Your task to perform on an android device: delete location history Image 0: 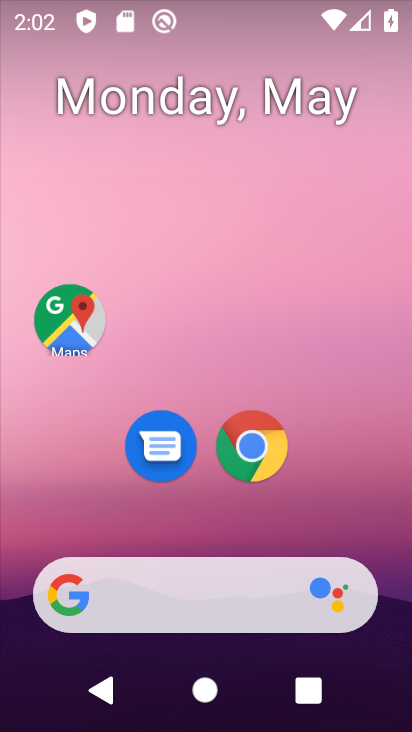
Step 0: drag from (374, 472) to (374, 191)
Your task to perform on an android device: delete location history Image 1: 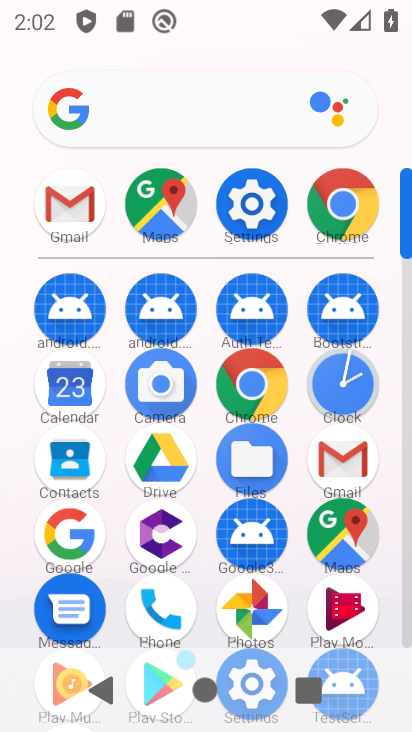
Step 1: click (253, 208)
Your task to perform on an android device: delete location history Image 2: 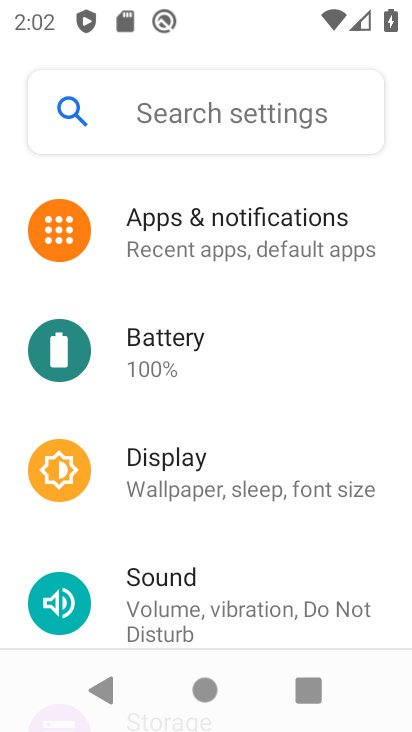
Step 2: drag from (249, 553) to (274, 317)
Your task to perform on an android device: delete location history Image 3: 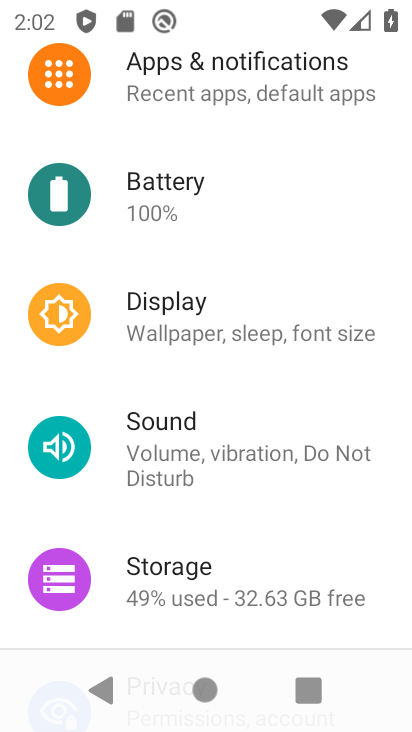
Step 3: drag from (258, 496) to (275, 258)
Your task to perform on an android device: delete location history Image 4: 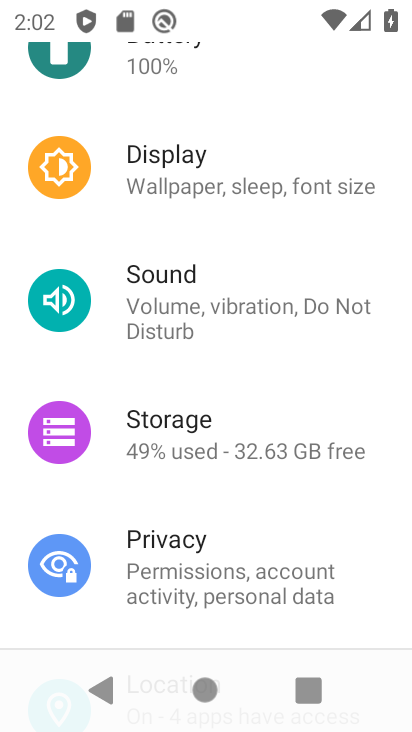
Step 4: drag from (250, 492) to (268, 240)
Your task to perform on an android device: delete location history Image 5: 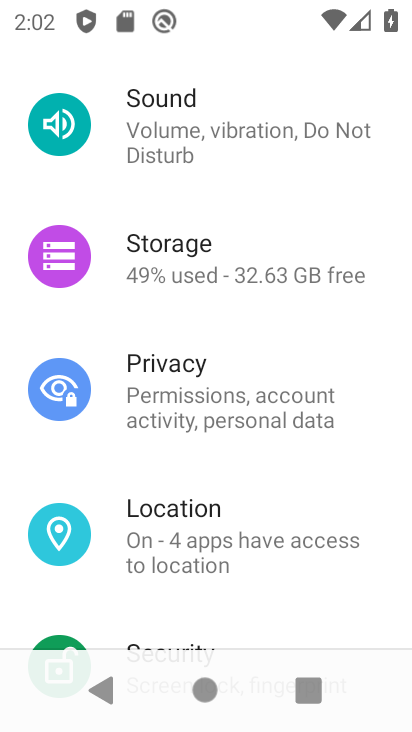
Step 5: click (233, 527)
Your task to perform on an android device: delete location history Image 6: 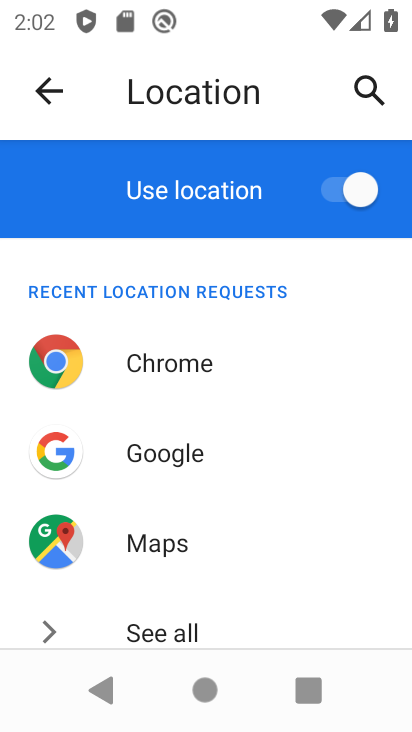
Step 6: drag from (239, 598) to (269, 304)
Your task to perform on an android device: delete location history Image 7: 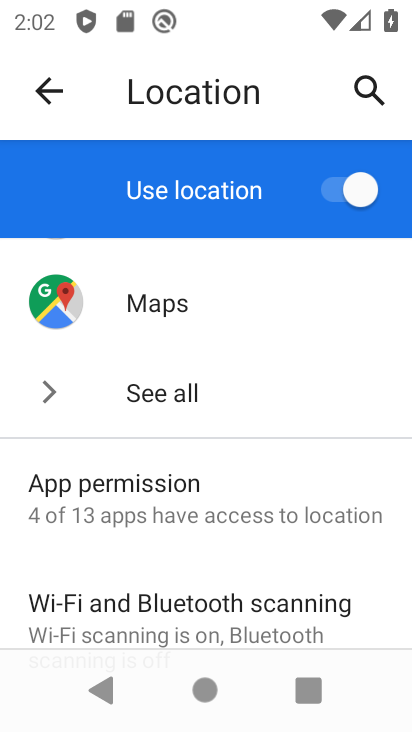
Step 7: drag from (255, 534) to (238, 303)
Your task to perform on an android device: delete location history Image 8: 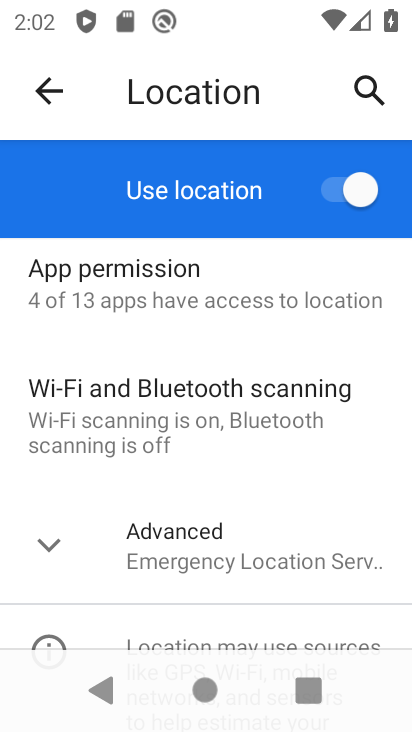
Step 8: drag from (245, 553) to (253, 361)
Your task to perform on an android device: delete location history Image 9: 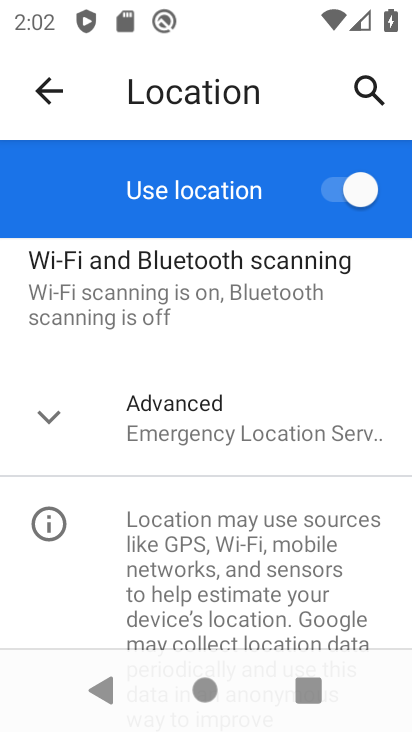
Step 9: drag from (232, 611) to (238, 395)
Your task to perform on an android device: delete location history Image 10: 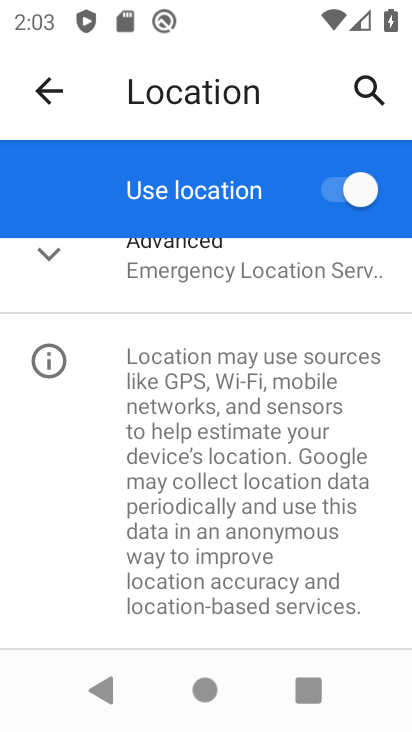
Step 10: click (229, 395)
Your task to perform on an android device: delete location history Image 11: 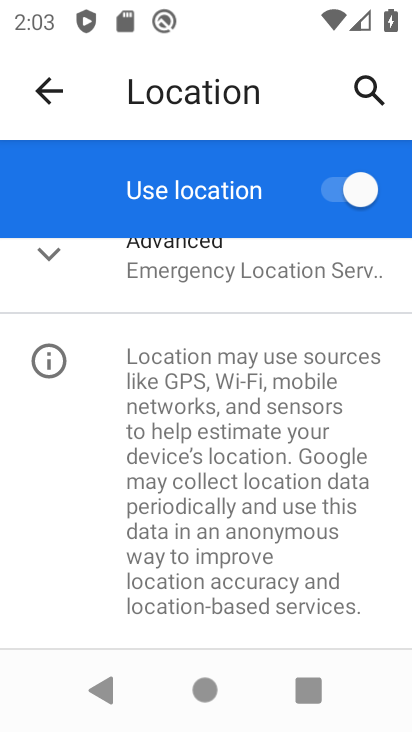
Step 11: click (183, 281)
Your task to perform on an android device: delete location history Image 12: 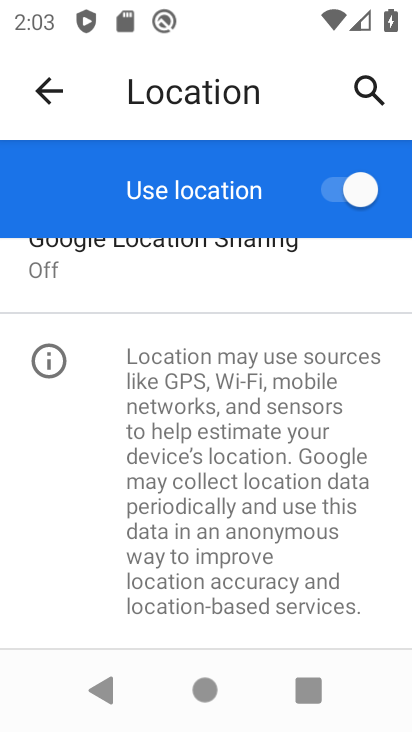
Step 12: drag from (189, 324) to (175, 529)
Your task to perform on an android device: delete location history Image 13: 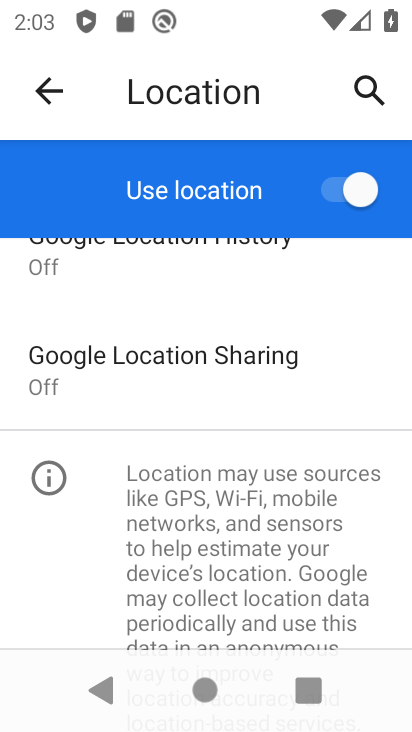
Step 13: drag from (169, 348) to (168, 588)
Your task to perform on an android device: delete location history Image 14: 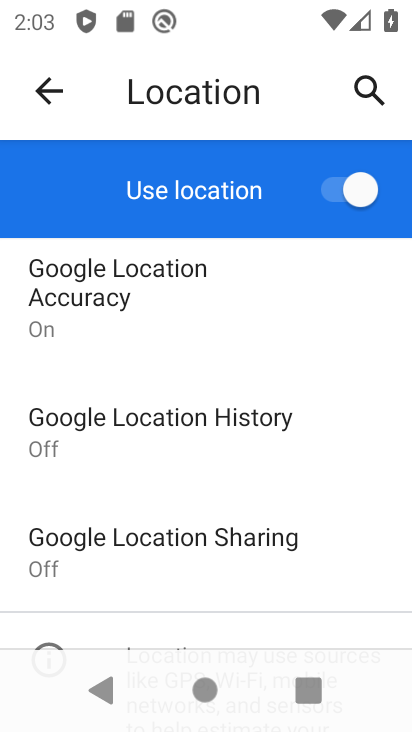
Step 14: click (169, 413)
Your task to perform on an android device: delete location history Image 15: 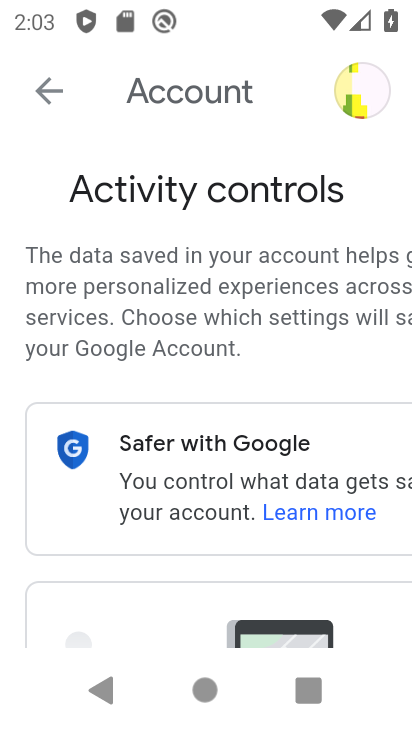
Step 15: drag from (163, 611) to (204, 279)
Your task to perform on an android device: delete location history Image 16: 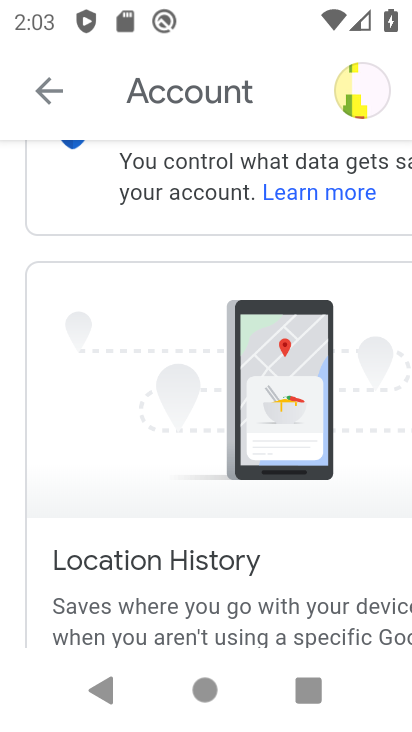
Step 16: drag from (180, 573) to (219, 277)
Your task to perform on an android device: delete location history Image 17: 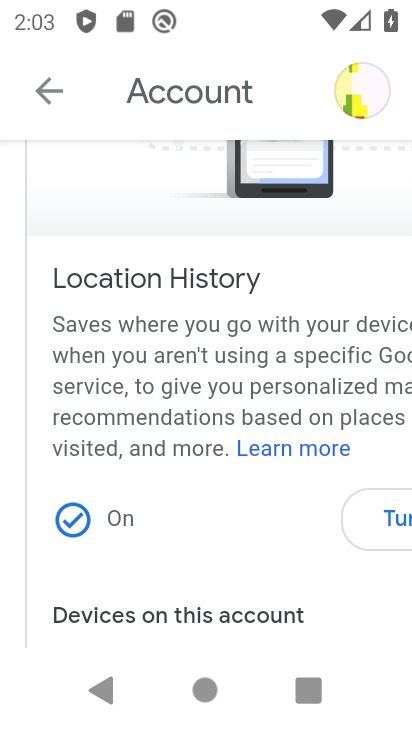
Step 17: drag from (203, 575) to (214, 282)
Your task to perform on an android device: delete location history Image 18: 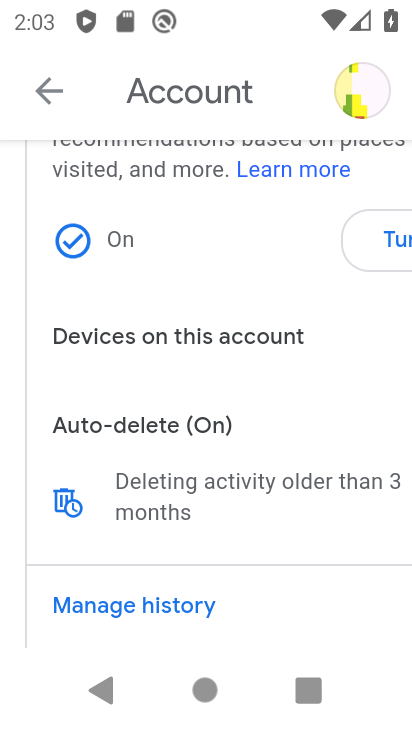
Step 18: drag from (207, 544) to (218, 320)
Your task to perform on an android device: delete location history Image 19: 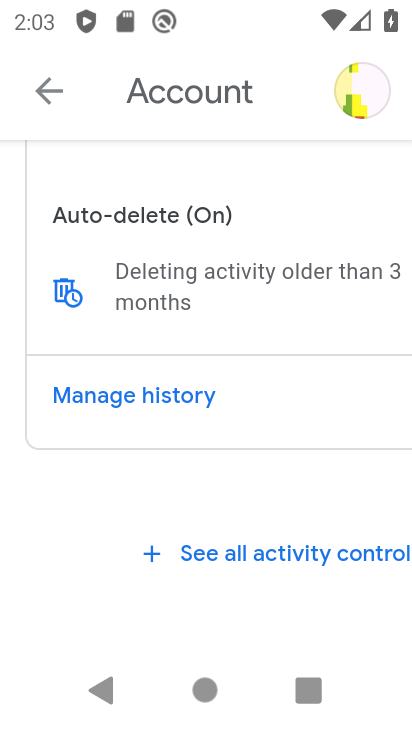
Step 19: click (188, 407)
Your task to perform on an android device: delete location history Image 20: 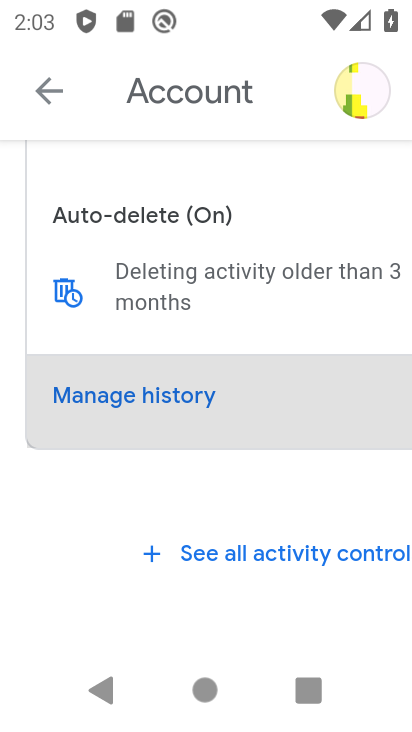
Step 20: click (188, 405)
Your task to perform on an android device: delete location history Image 21: 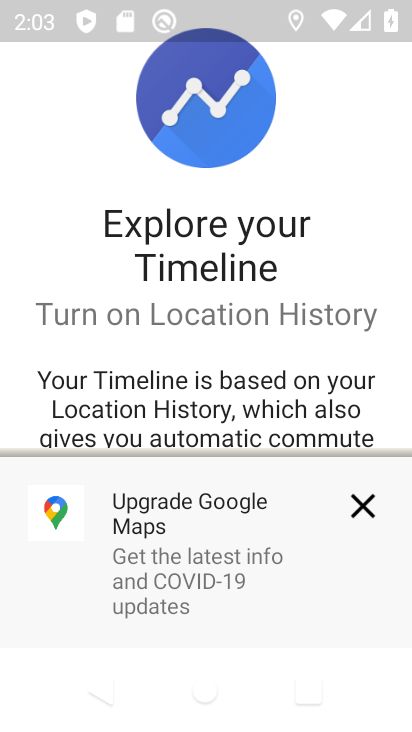
Step 21: click (374, 505)
Your task to perform on an android device: delete location history Image 22: 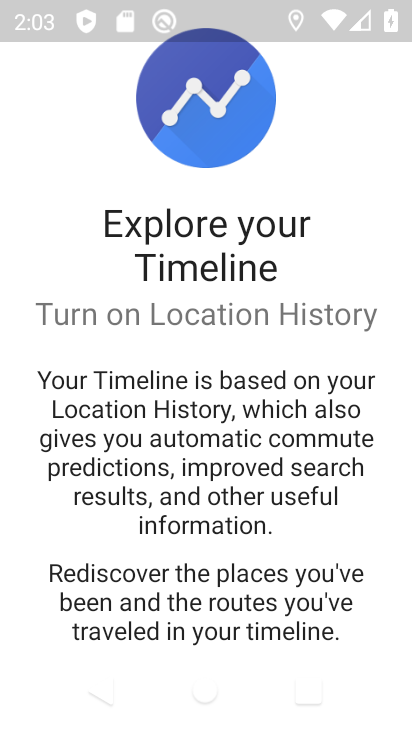
Step 22: drag from (298, 561) to (312, 243)
Your task to perform on an android device: delete location history Image 23: 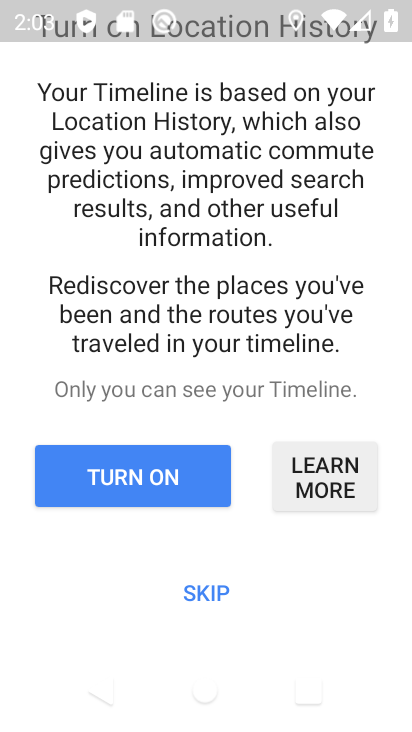
Step 23: click (213, 567)
Your task to perform on an android device: delete location history Image 24: 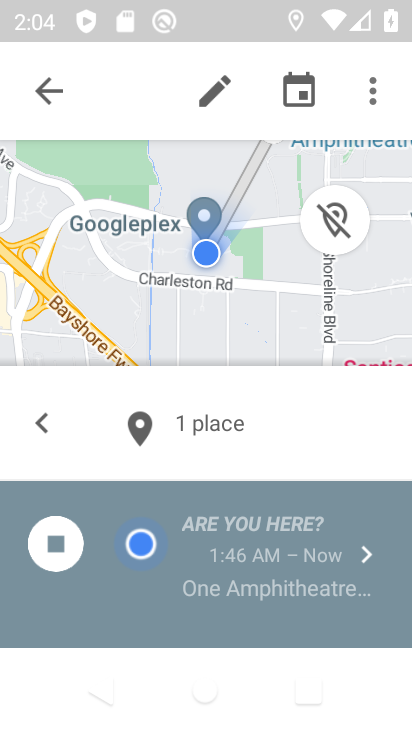
Step 24: drag from (365, 95) to (165, 603)
Your task to perform on an android device: delete location history Image 25: 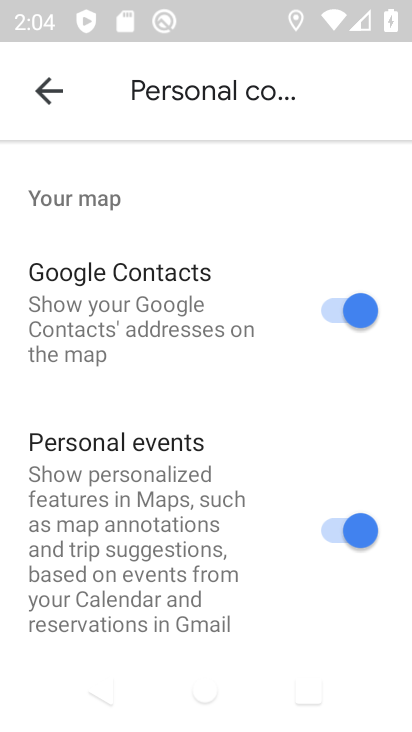
Step 25: drag from (249, 631) to (301, 281)
Your task to perform on an android device: delete location history Image 26: 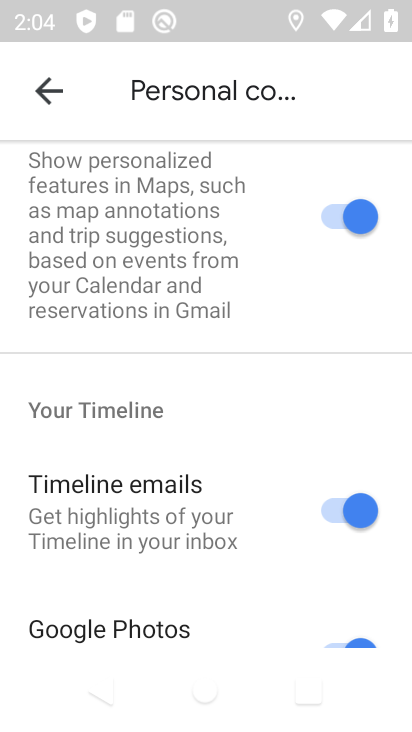
Step 26: drag from (265, 609) to (214, 217)
Your task to perform on an android device: delete location history Image 27: 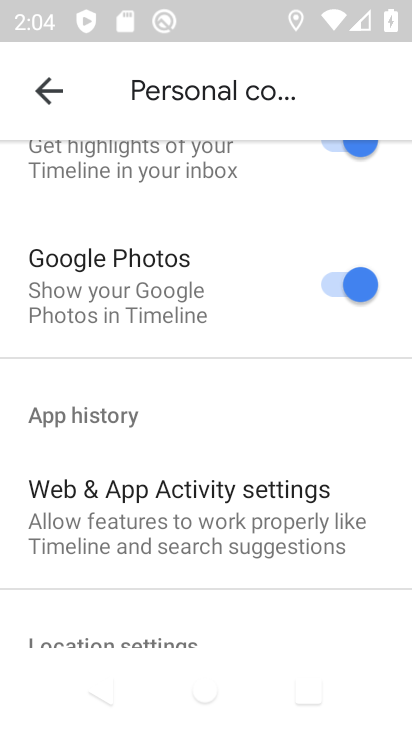
Step 27: drag from (215, 554) to (208, 144)
Your task to perform on an android device: delete location history Image 28: 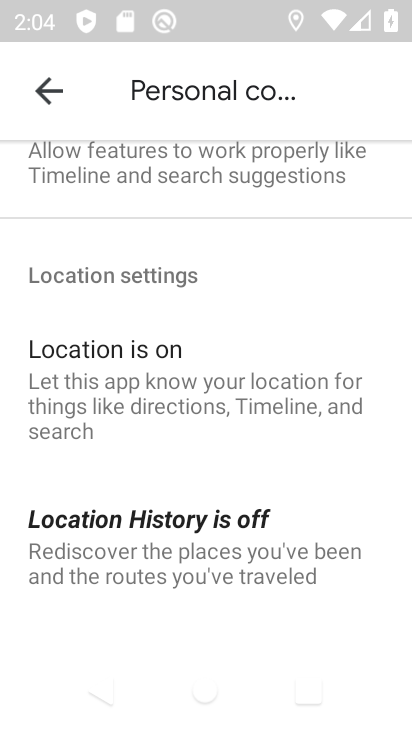
Step 28: drag from (233, 540) to (210, 253)
Your task to perform on an android device: delete location history Image 29: 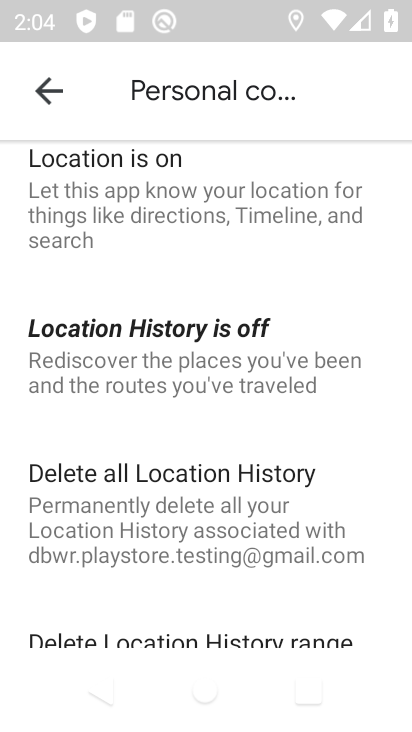
Step 29: click (206, 519)
Your task to perform on an android device: delete location history Image 30: 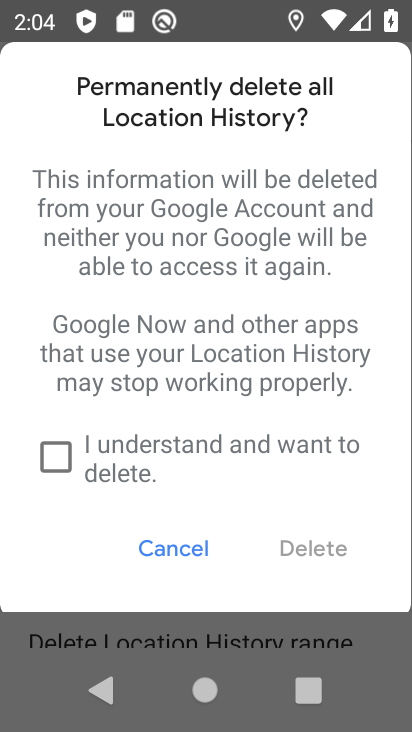
Step 30: click (47, 462)
Your task to perform on an android device: delete location history Image 31: 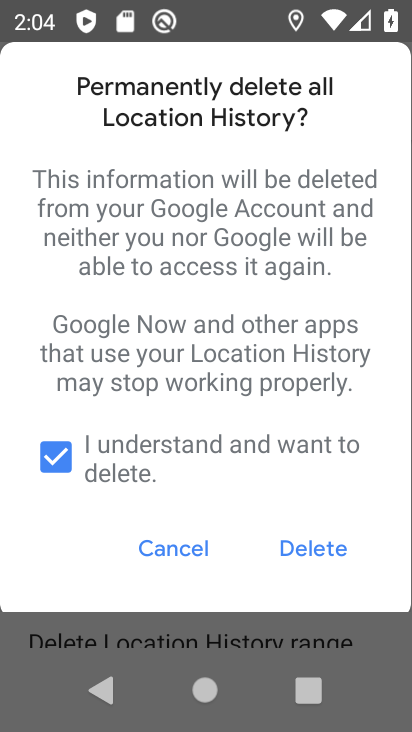
Step 31: click (274, 553)
Your task to perform on an android device: delete location history Image 32: 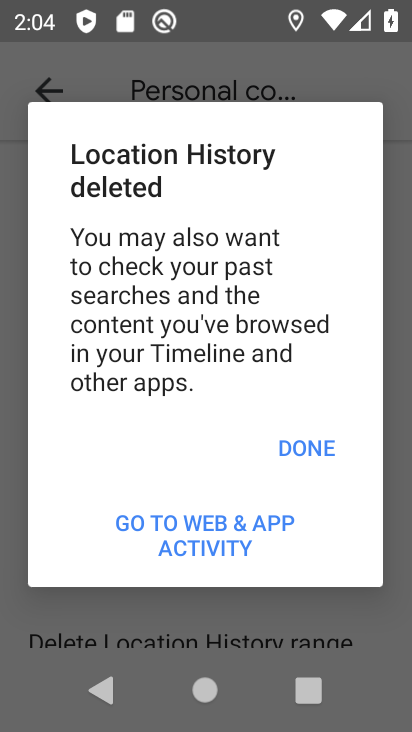
Step 32: click (309, 436)
Your task to perform on an android device: delete location history Image 33: 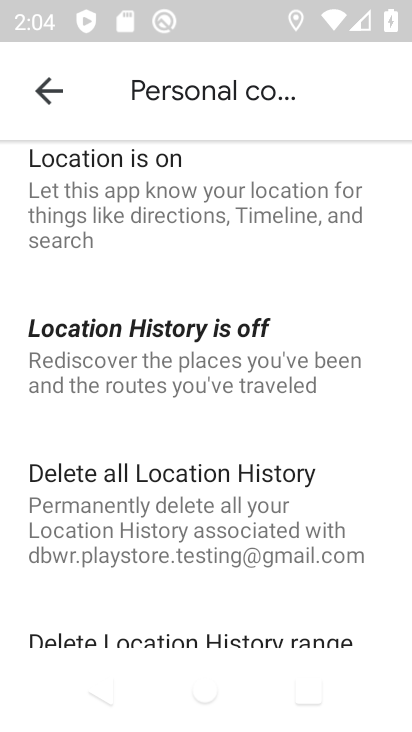
Step 33: task complete